Your task to perform on an android device: Go to Google Image 0: 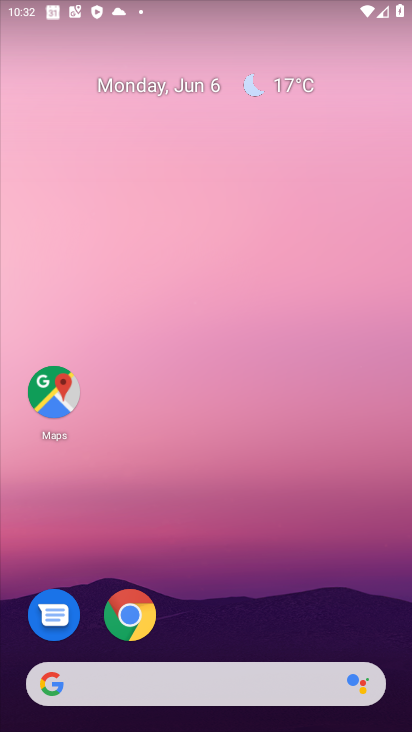
Step 0: drag from (210, 631) to (277, 122)
Your task to perform on an android device: Go to Google Image 1: 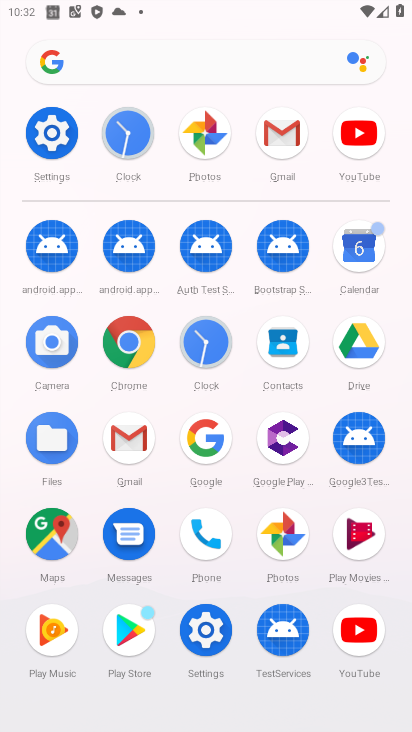
Step 1: click (198, 437)
Your task to perform on an android device: Go to Google Image 2: 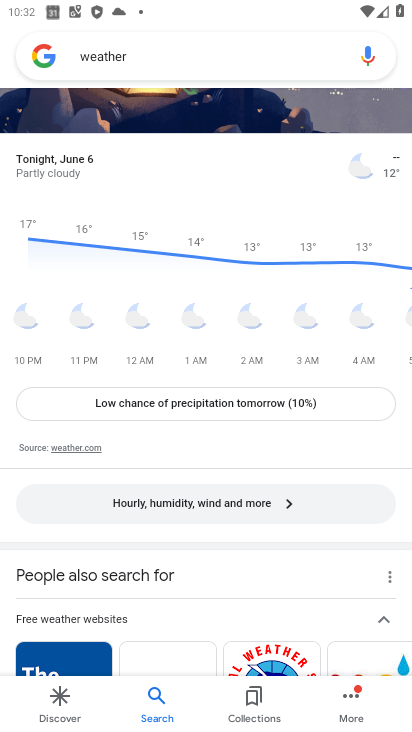
Step 2: task complete